Your task to perform on an android device: change your default location settings in chrome Image 0: 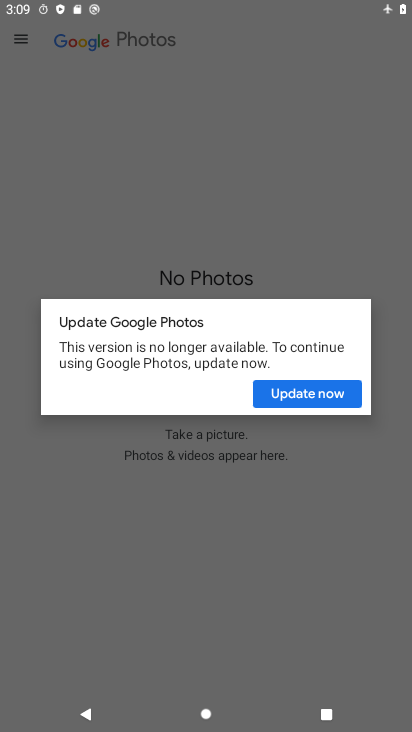
Step 0: press home button
Your task to perform on an android device: change your default location settings in chrome Image 1: 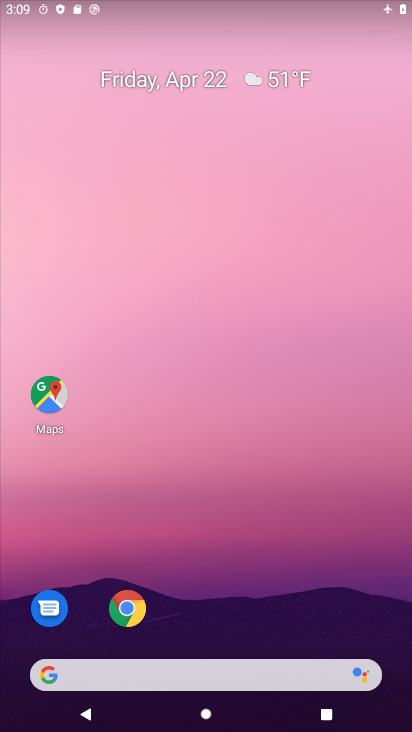
Step 1: click (129, 608)
Your task to perform on an android device: change your default location settings in chrome Image 2: 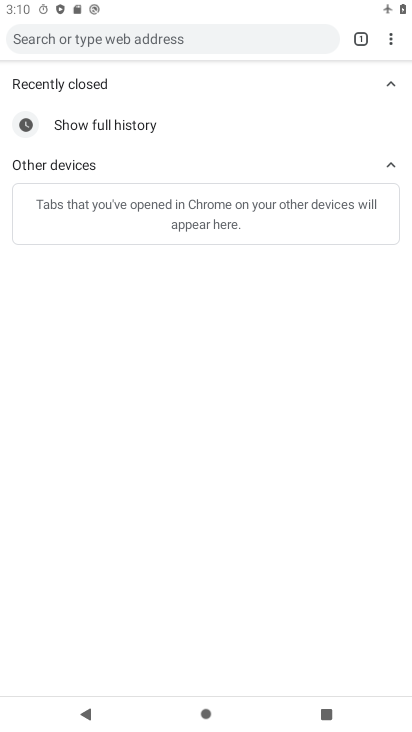
Step 2: click (391, 43)
Your task to perform on an android device: change your default location settings in chrome Image 3: 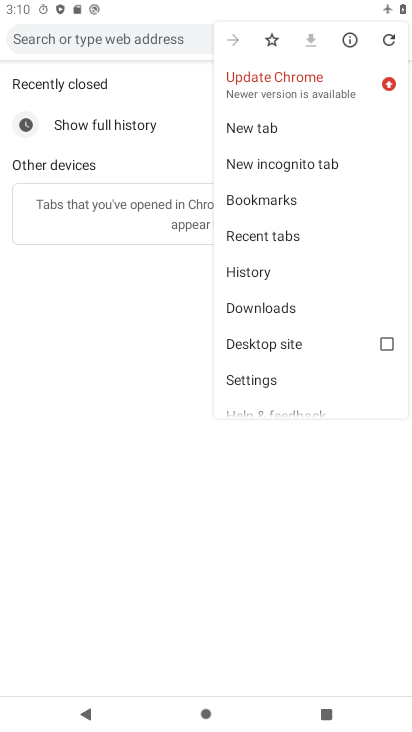
Step 3: click (272, 384)
Your task to perform on an android device: change your default location settings in chrome Image 4: 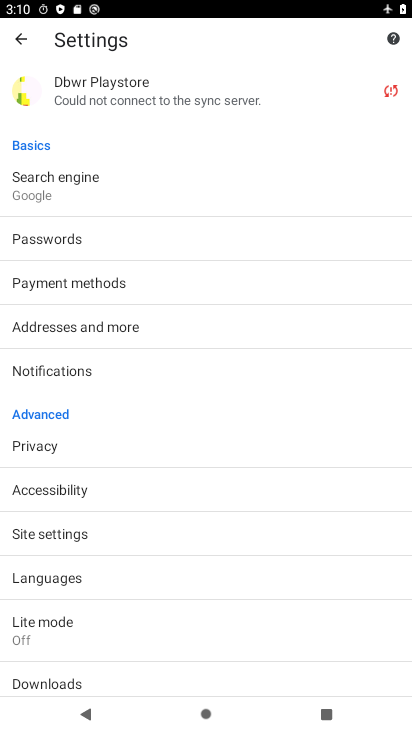
Step 4: click (87, 535)
Your task to perform on an android device: change your default location settings in chrome Image 5: 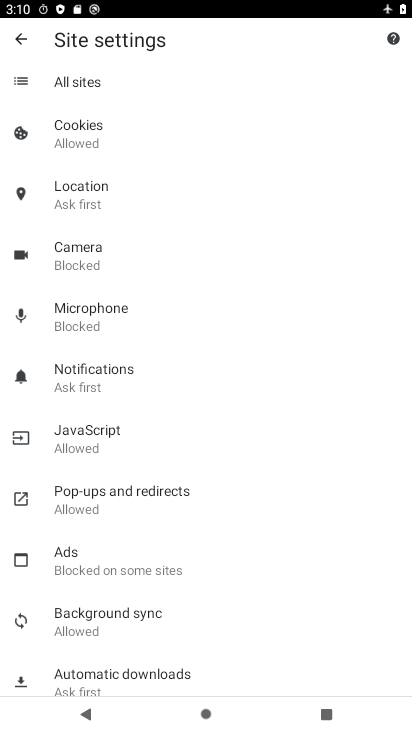
Step 5: click (85, 200)
Your task to perform on an android device: change your default location settings in chrome Image 6: 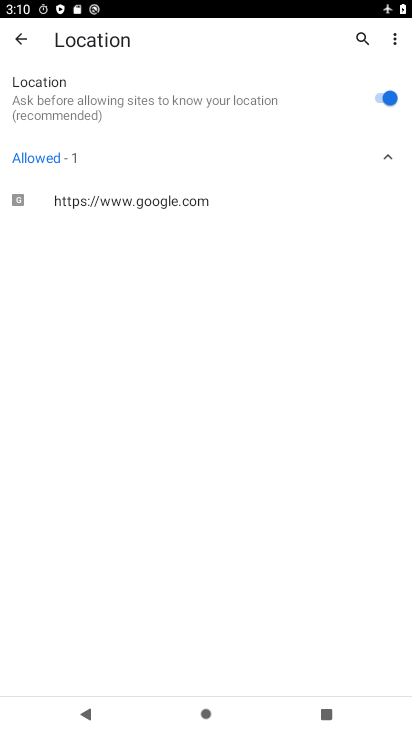
Step 6: click (383, 95)
Your task to perform on an android device: change your default location settings in chrome Image 7: 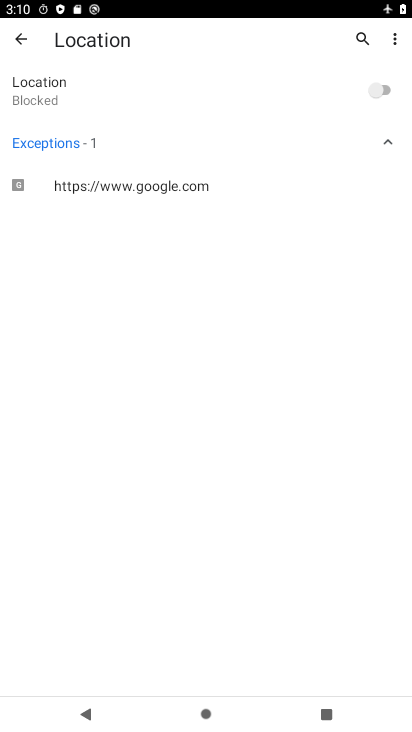
Step 7: task complete